Your task to perform on an android device: Open Reddit.com Image 0: 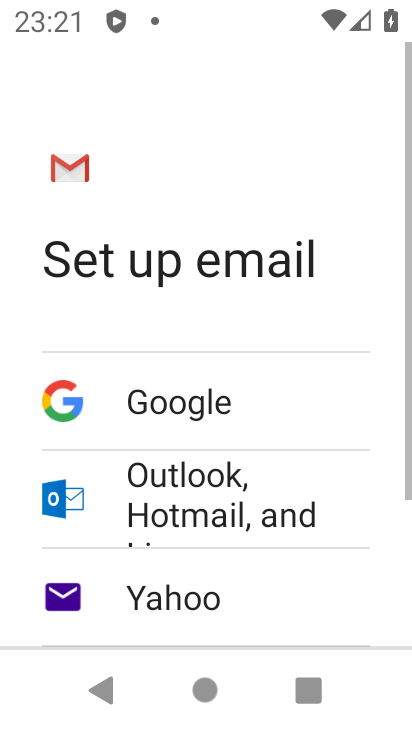
Step 0: press home button
Your task to perform on an android device: Open Reddit.com Image 1: 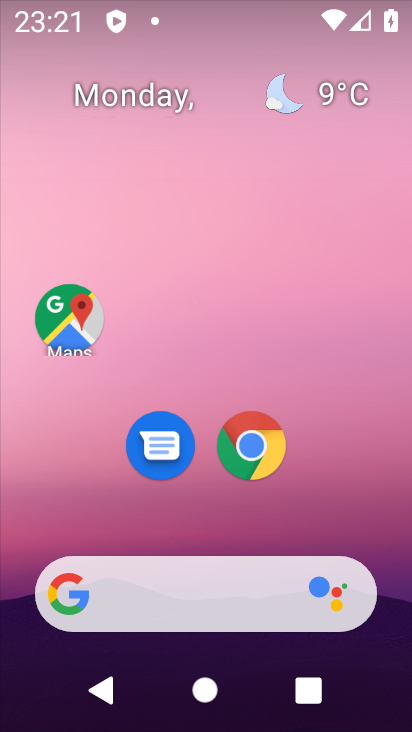
Step 1: drag from (283, 575) to (241, 42)
Your task to perform on an android device: Open Reddit.com Image 2: 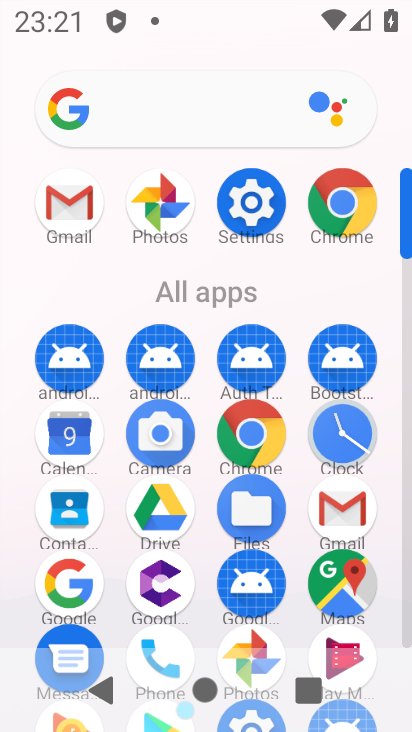
Step 2: click (267, 429)
Your task to perform on an android device: Open Reddit.com Image 3: 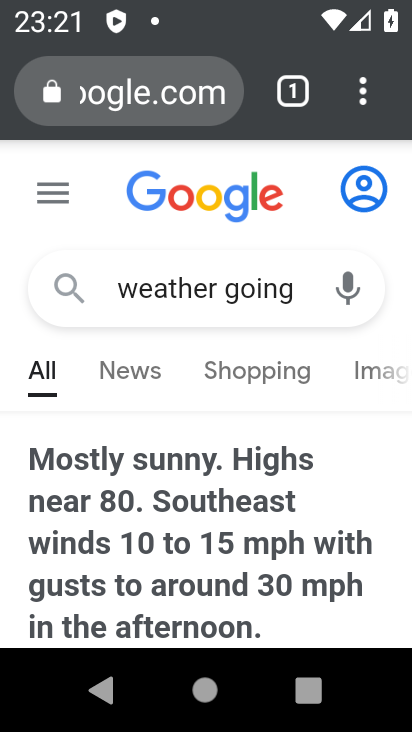
Step 3: click (194, 101)
Your task to perform on an android device: Open Reddit.com Image 4: 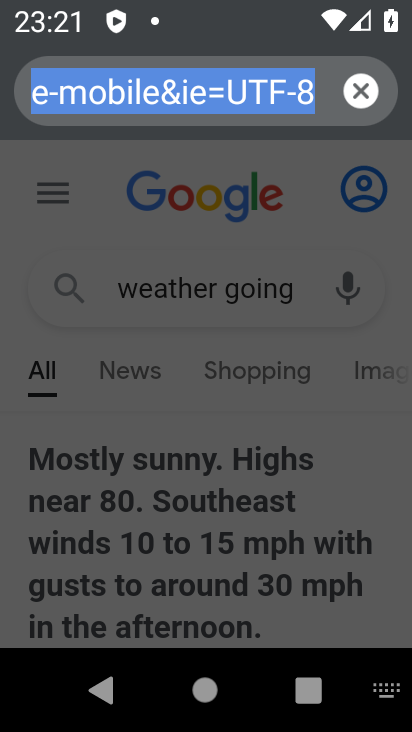
Step 4: click (354, 87)
Your task to perform on an android device: Open Reddit.com Image 5: 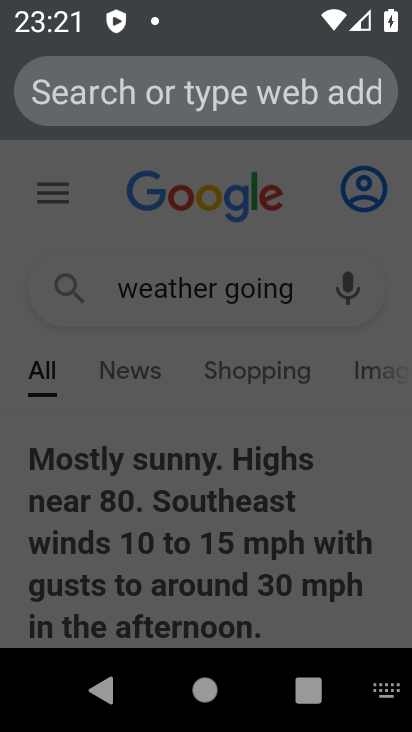
Step 5: type "reddit.com"
Your task to perform on an android device: Open Reddit.com Image 6: 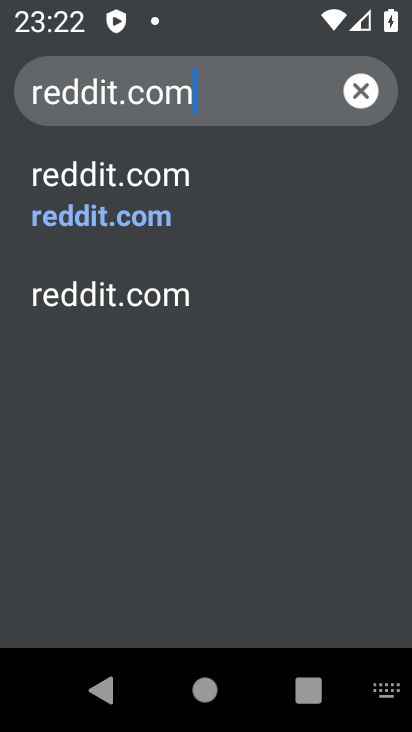
Step 6: click (172, 219)
Your task to perform on an android device: Open Reddit.com Image 7: 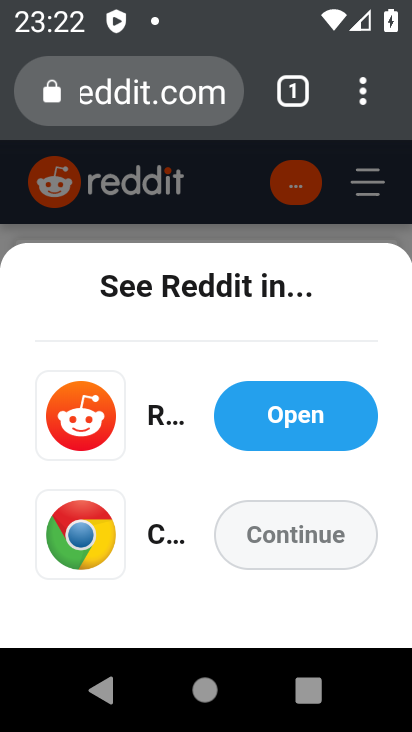
Step 7: task complete